Your task to perform on an android device: open app "The Home Depot" Image 0: 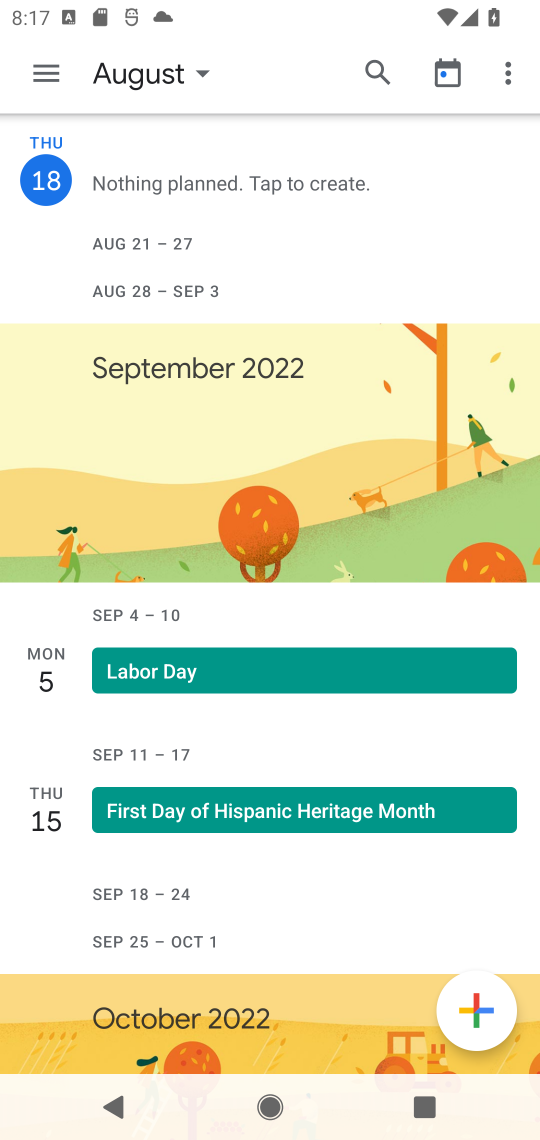
Step 0: press home button
Your task to perform on an android device: open app "The Home Depot" Image 1: 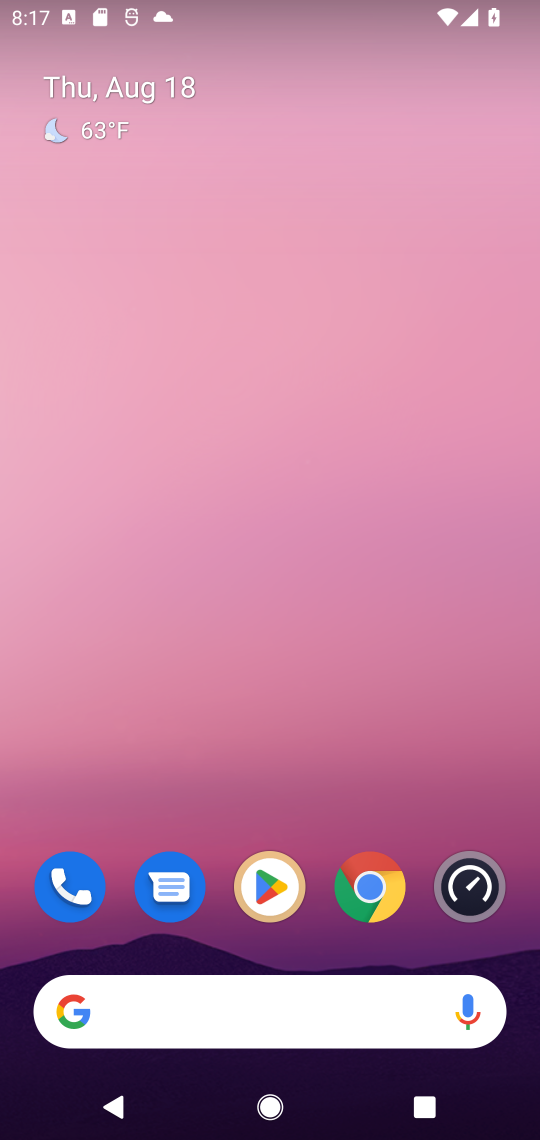
Step 1: drag from (334, 962) to (285, 57)
Your task to perform on an android device: open app "The Home Depot" Image 2: 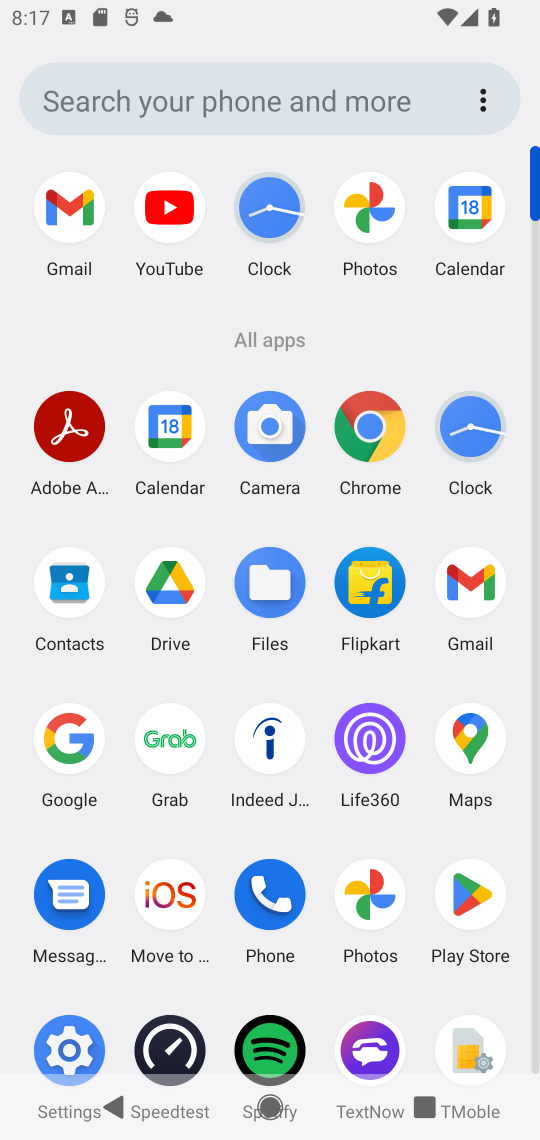
Step 2: click (466, 899)
Your task to perform on an android device: open app "The Home Depot" Image 3: 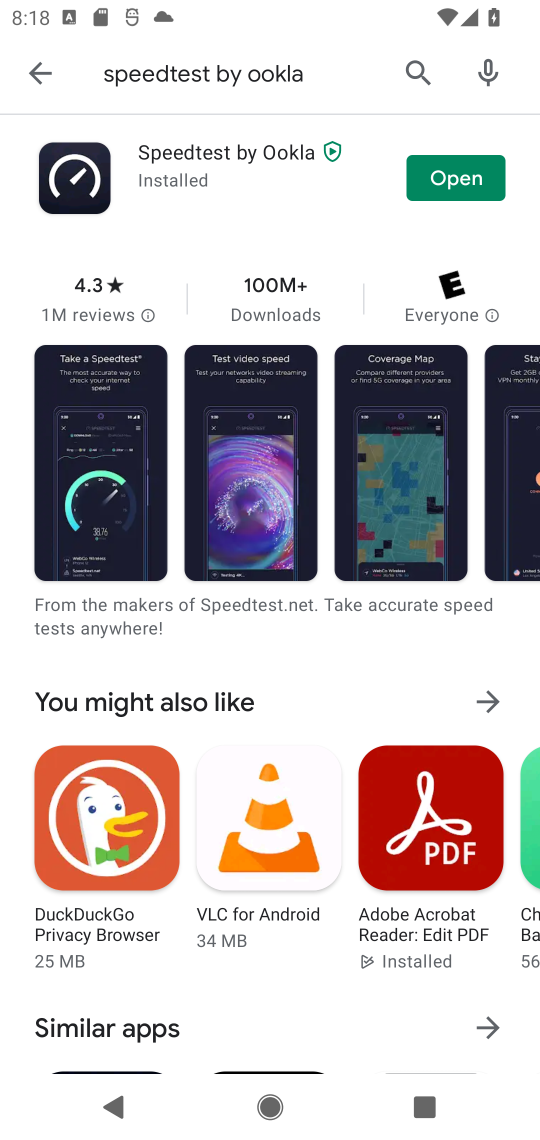
Step 3: click (415, 73)
Your task to perform on an android device: open app "The Home Depot" Image 4: 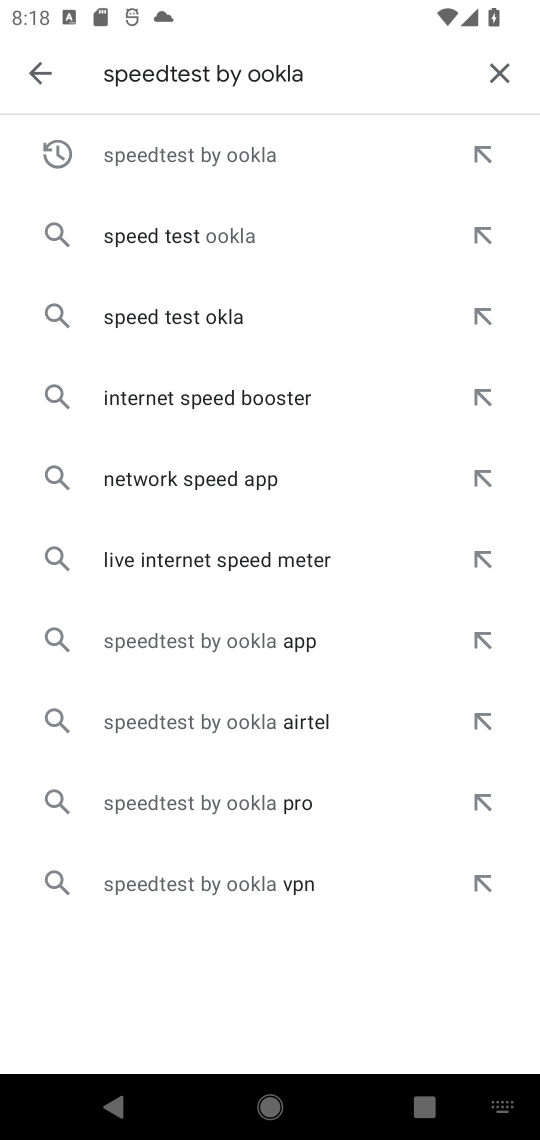
Step 4: click (500, 64)
Your task to perform on an android device: open app "The Home Depot" Image 5: 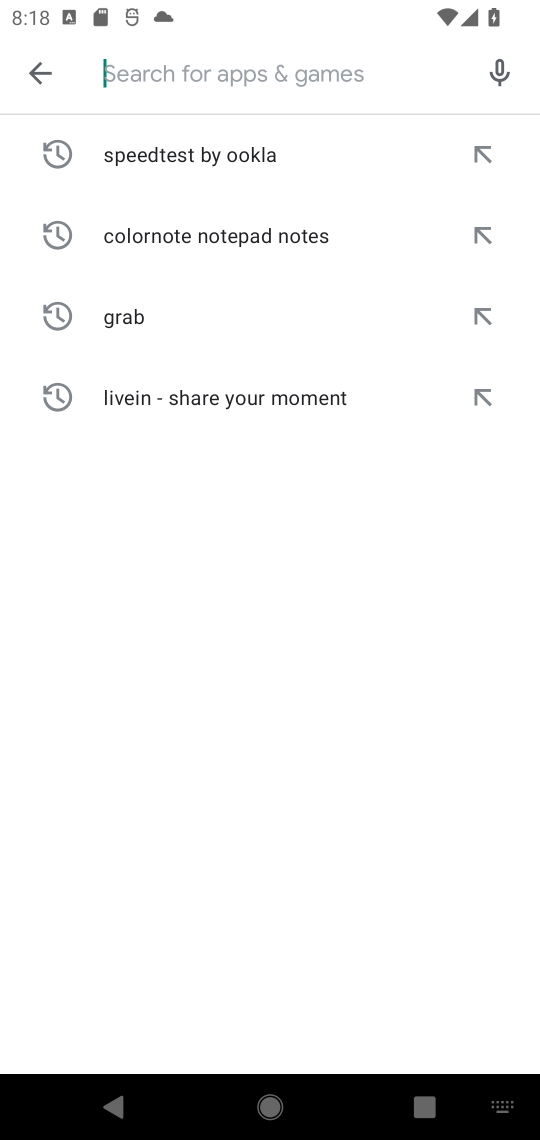
Step 5: type "The Home Depot"
Your task to perform on an android device: open app "The Home Depot" Image 6: 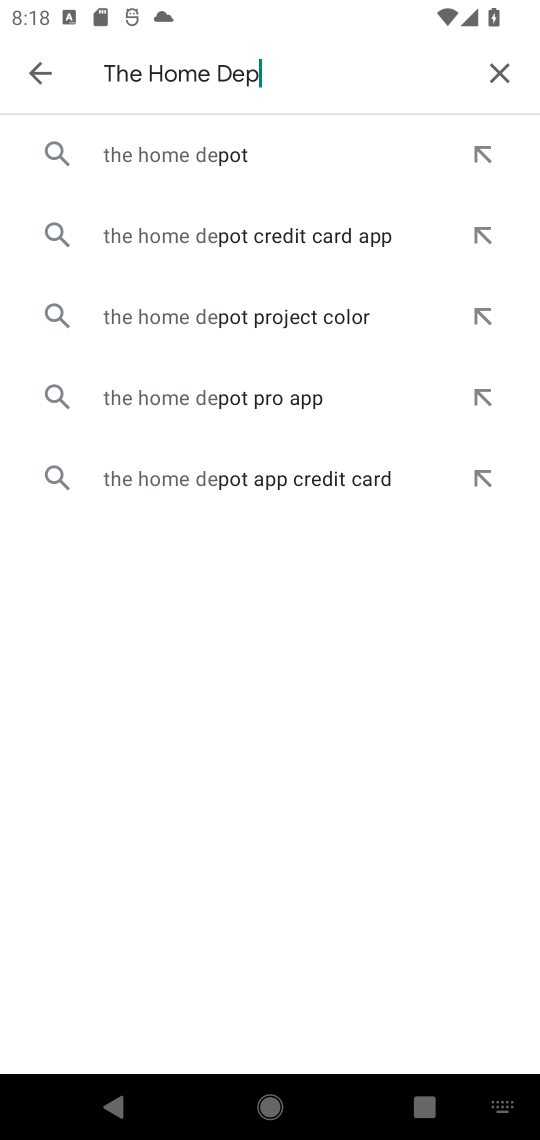
Step 6: type ""
Your task to perform on an android device: open app "The Home Depot" Image 7: 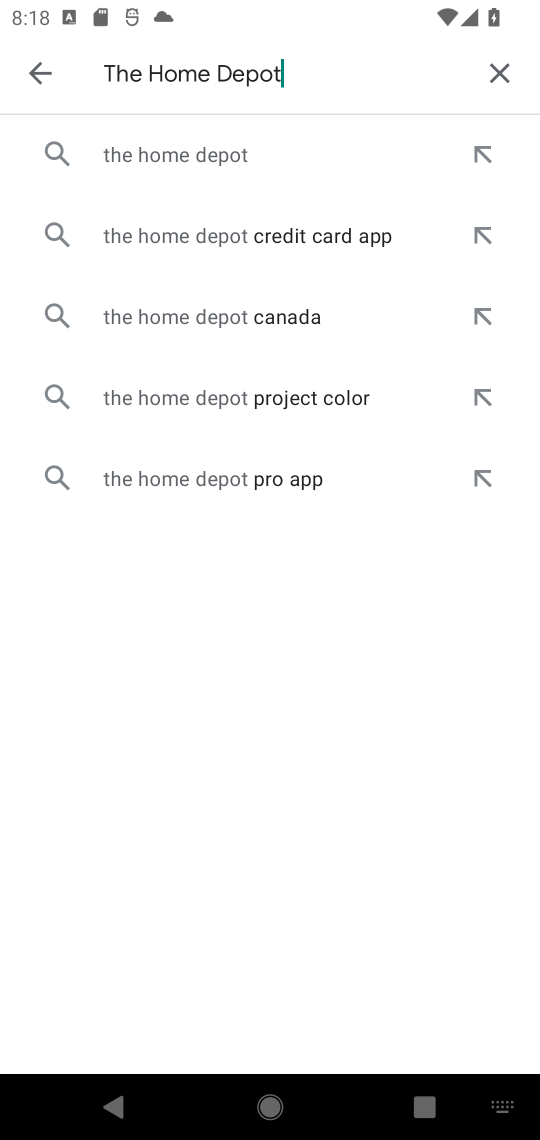
Step 7: click (163, 149)
Your task to perform on an android device: open app "The Home Depot" Image 8: 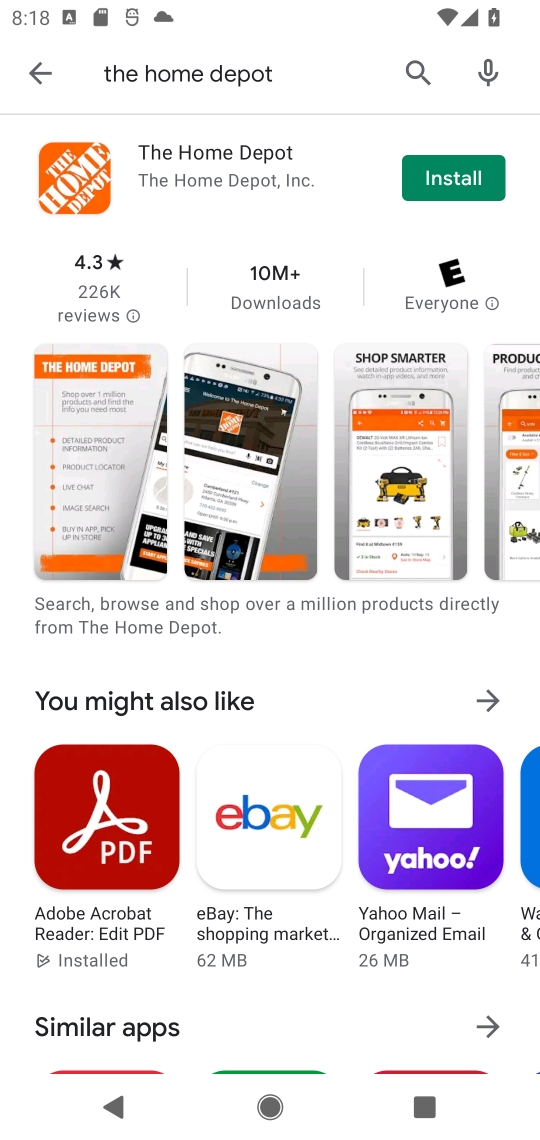
Step 8: click (442, 185)
Your task to perform on an android device: open app "The Home Depot" Image 9: 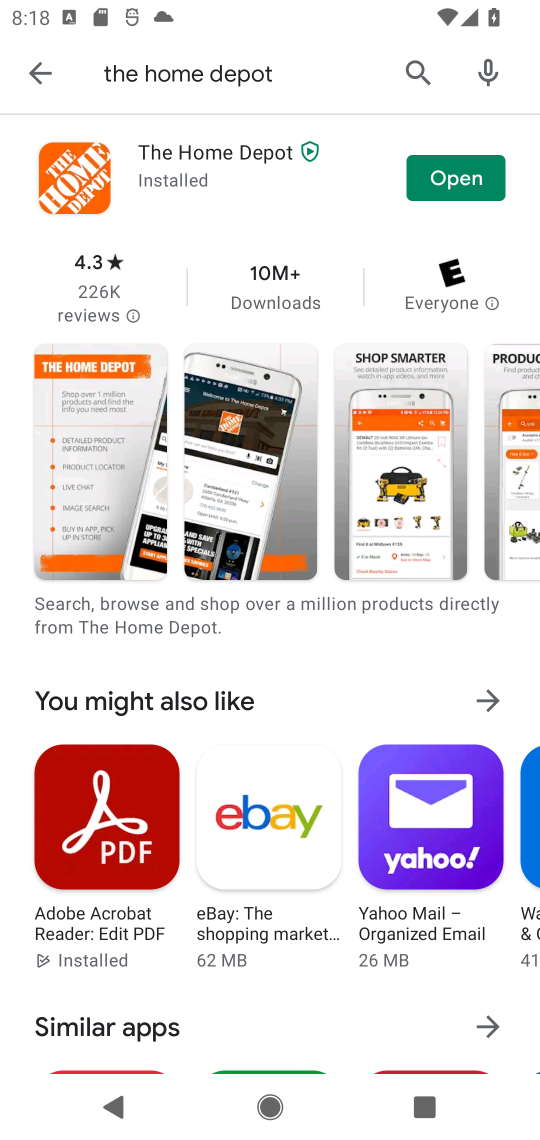
Step 9: click (444, 183)
Your task to perform on an android device: open app "The Home Depot" Image 10: 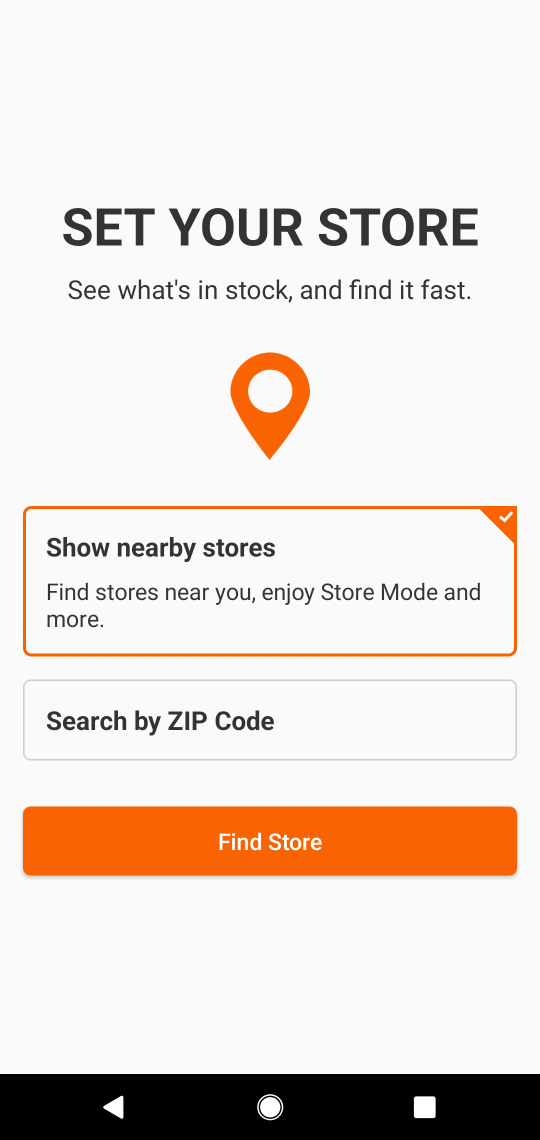
Step 10: task complete